Your task to perform on an android device: Open the phone app and click the voicemail tab. Image 0: 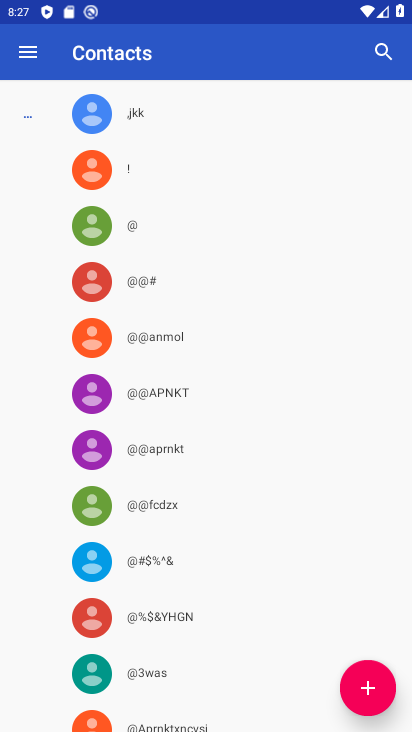
Step 0: press home button
Your task to perform on an android device: Open the phone app and click the voicemail tab. Image 1: 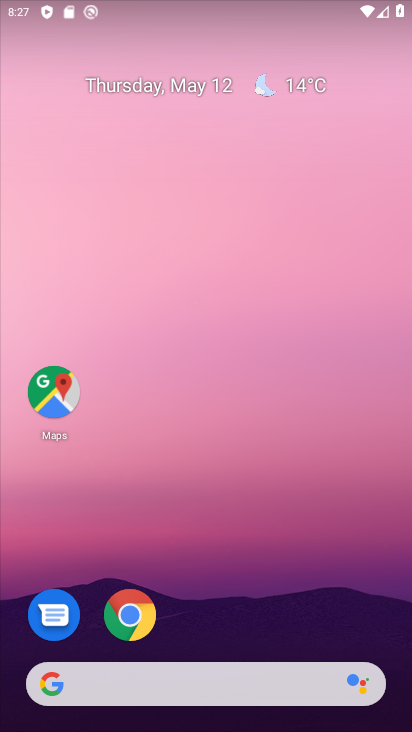
Step 1: drag from (196, 651) to (66, 7)
Your task to perform on an android device: Open the phone app and click the voicemail tab. Image 2: 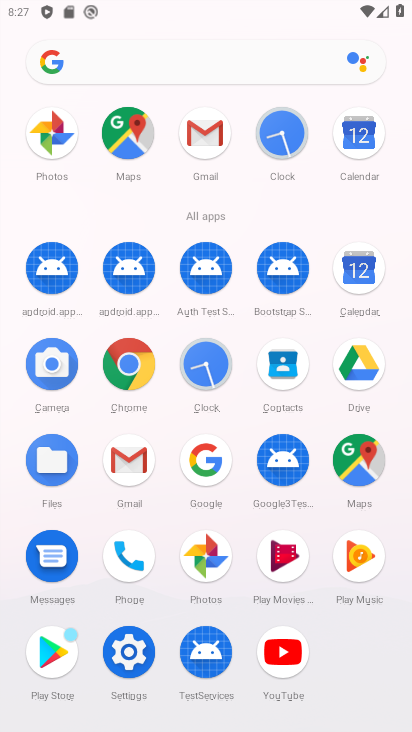
Step 2: click (131, 580)
Your task to perform on an android device: Open the phone app and click the voicemail tab. Image 3: 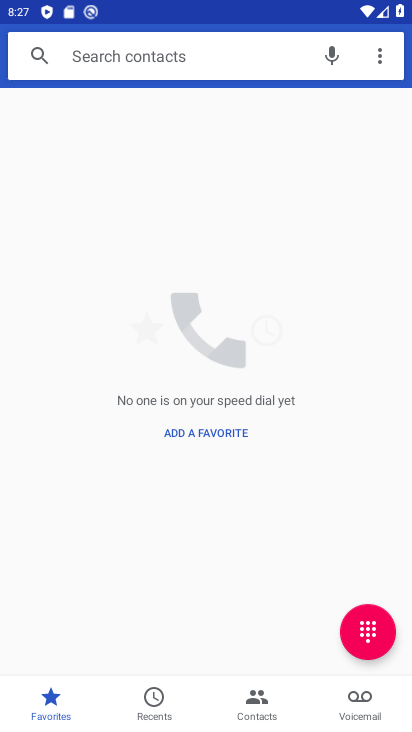
Step 3: click (354, 687)
Your task to perform on an android device: Open the phone app and click the voicemail tab. Image 4: 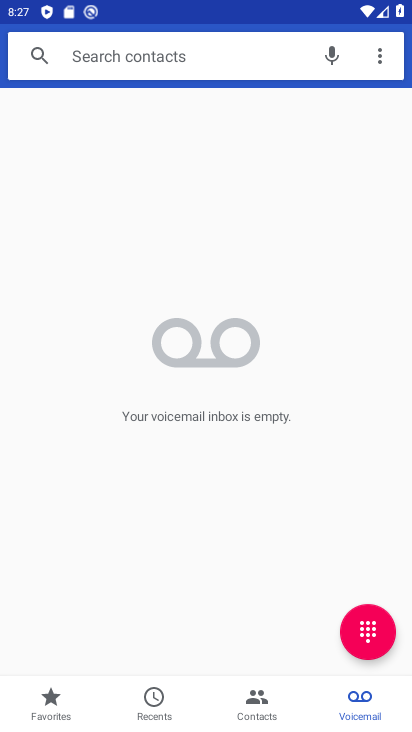
Step 4: task complete